Your task to perform on an android device: Open Google Maps and go to "Timeline" Image 0: 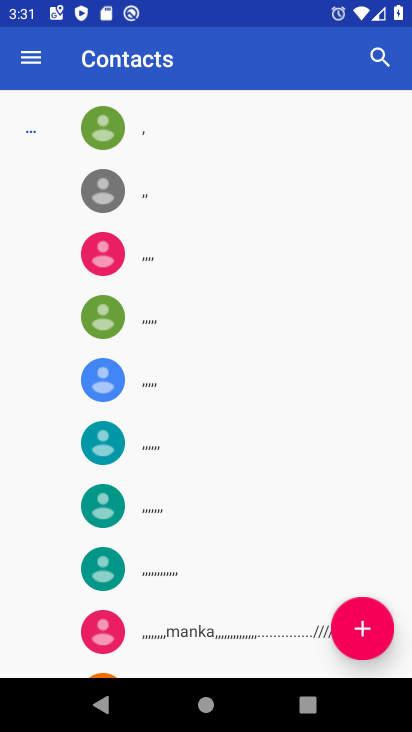
Step 0: press home button
Your task to perform on an android device: Open Google Maps and go to "Timeline" Image 1: 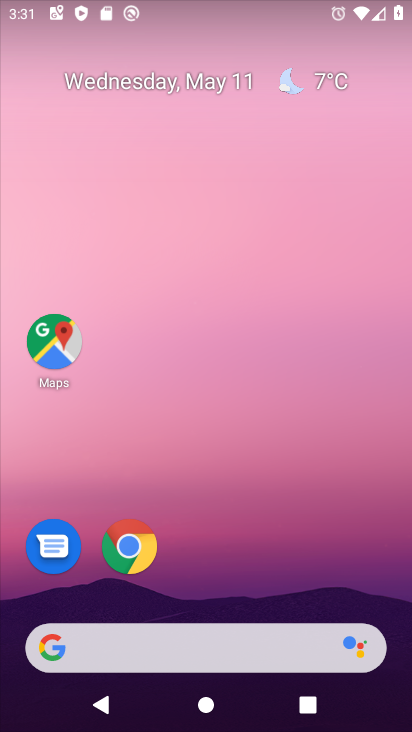
Step 1: drag from (239, 678) to (215, 5)
Your task to perform on an android device: Open Google Maps and go to "Timeline" Image 2: 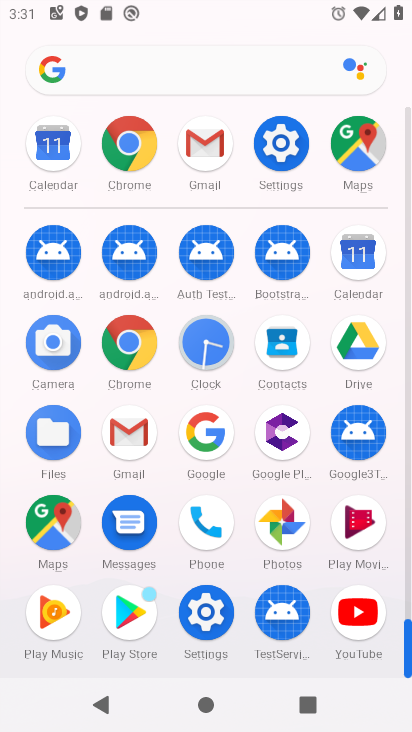
Step 2: click (48, 546)
Your task to perform on an android device: Open Google Maps and go to "Timeline" Image 3: 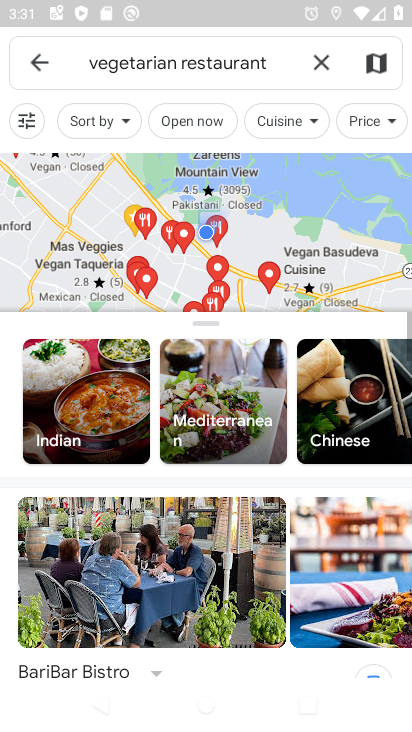
Step 3: press back button
Your task to perform on an android device: Open Google Maps and go to "Timeline" Image 4: 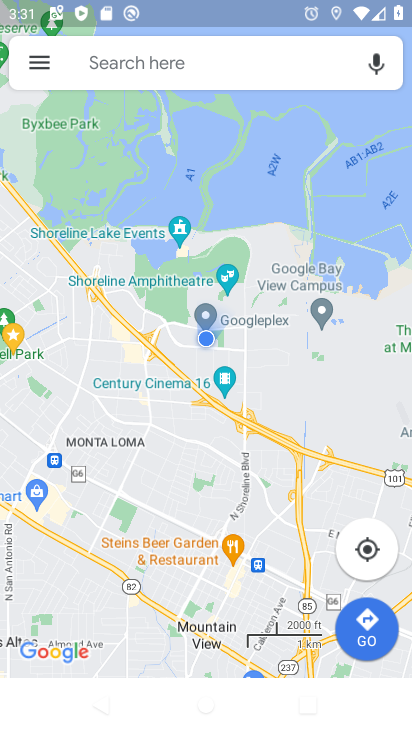
Step 4: click (32, 51)
Your task to perform on an android device: Open Google Maps and go to "Timeline" Image 5: 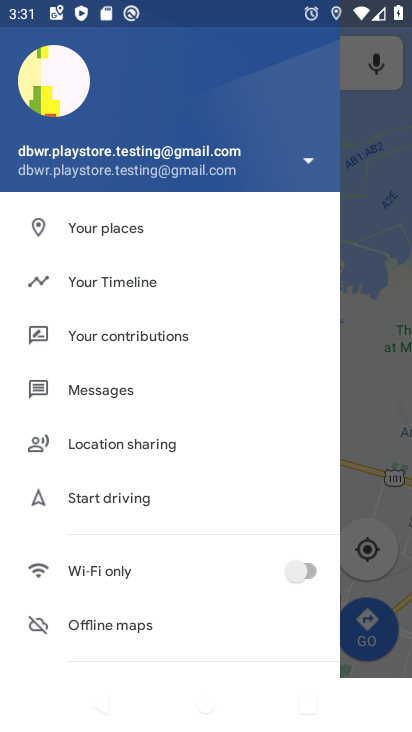
Step 5: click (154, 278)
Your task to perform on an android device: Open Google Maps and go to "Timeline" Image 6: 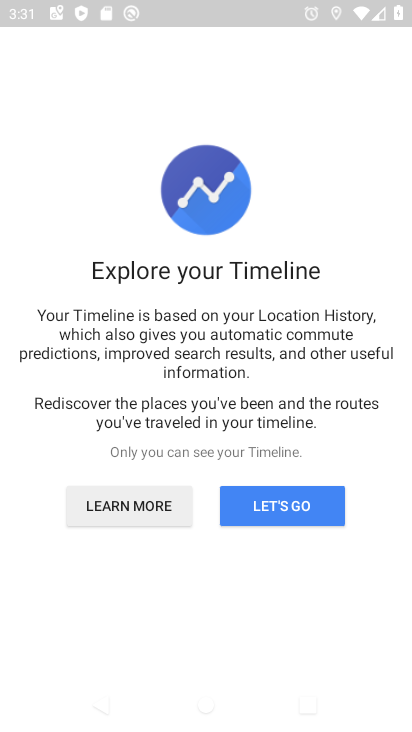
Step 6: click (300, 499)
Your task to perform on an android device: Open Google Maps and go to "Timeline" Image 7: 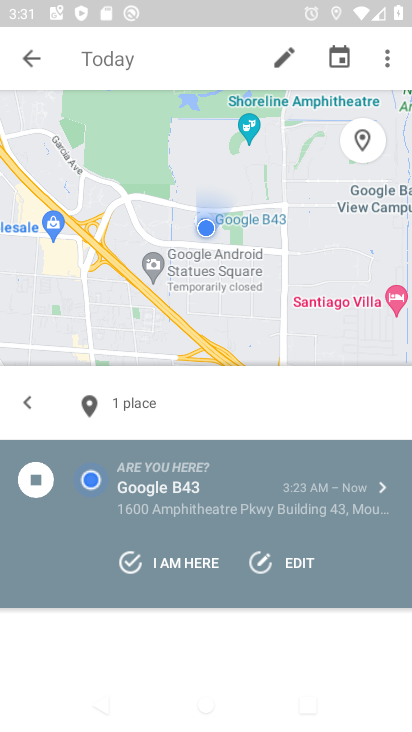
Step 7: task complete